Your task to perform on an android device: Go to notification settings Image 0: 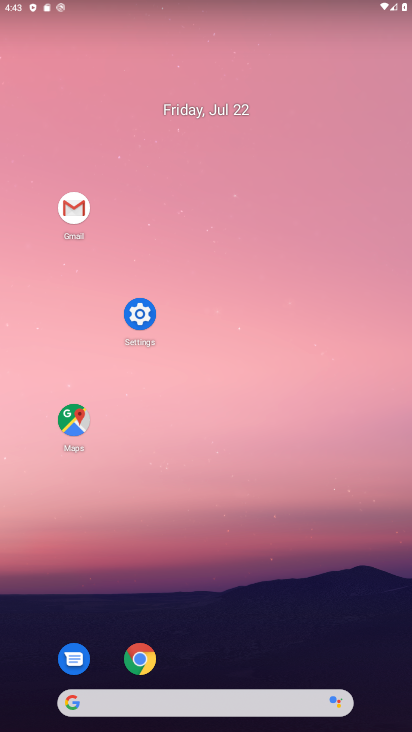
Step 0: click (124, 314)
Your task to perform on an android device: Go to notification settings Image 1: 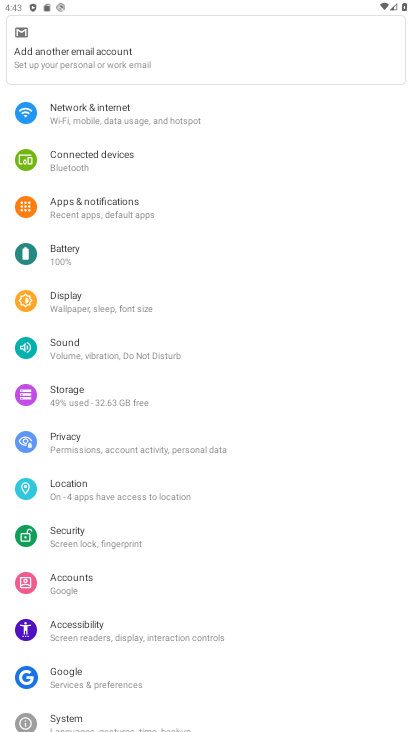
Step 1: click (148, 206)
Your task to perform on an android device: Go to notification settings Image 2: 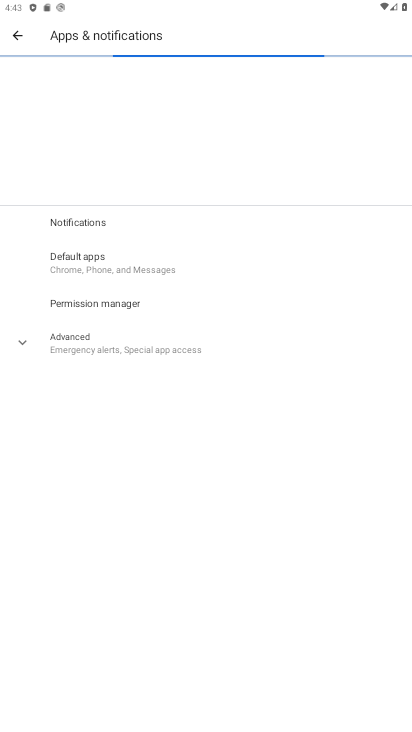
Step 2: task complete